Your task to perform on an android device: turn on location history Image 0: 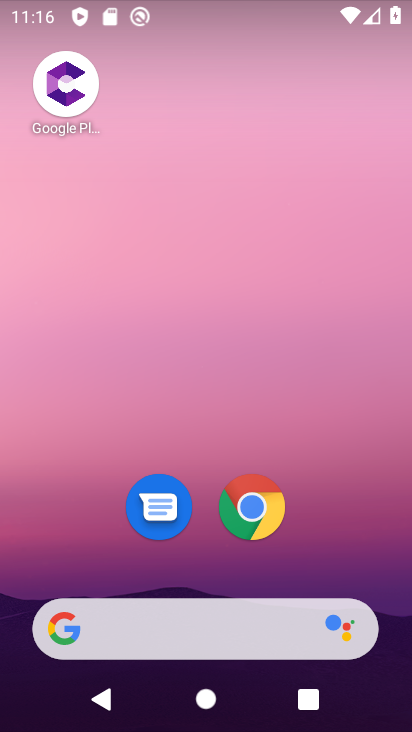
Step 0: drag from (387, 450) to (353, 148)
Your task to perform on an android device: turn on location history Image 1: 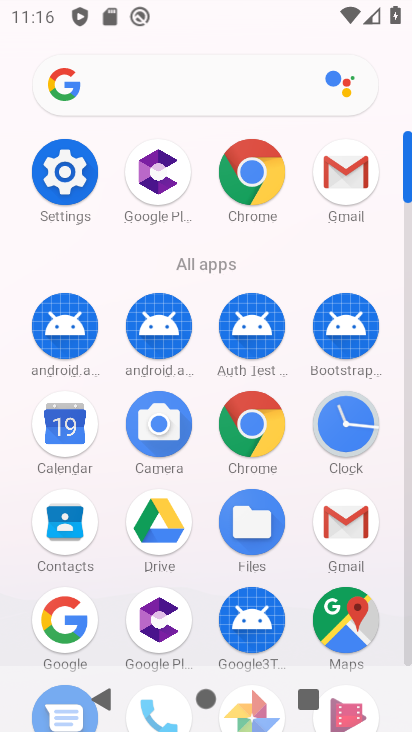
Step 1: click (53, 179)
Your task to perform on an android device: turn on location history Image 2: 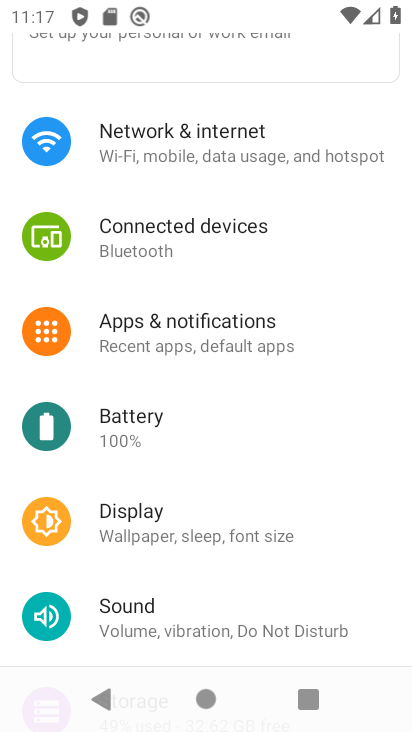
Step 2: drag from (272, 561) to (272, 221)
Your task to perform on an android device: turn on location history Image 3: 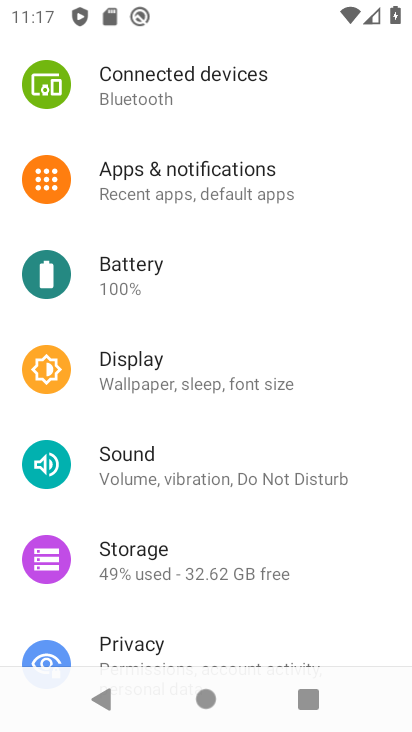
Step 3: drag from (336, 534) to (322, 311)
Your task to perform on an android device: turn on location history Image 4: 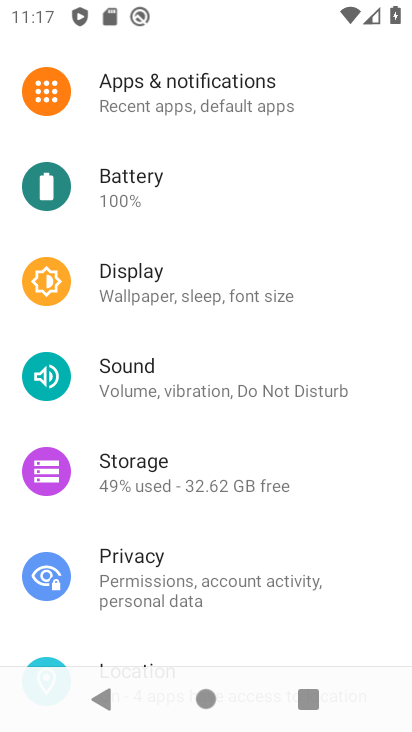
Step 4: drag from (304, 534) to (313, 315)
Your task to perform on an android device: turn on location history Image 5: 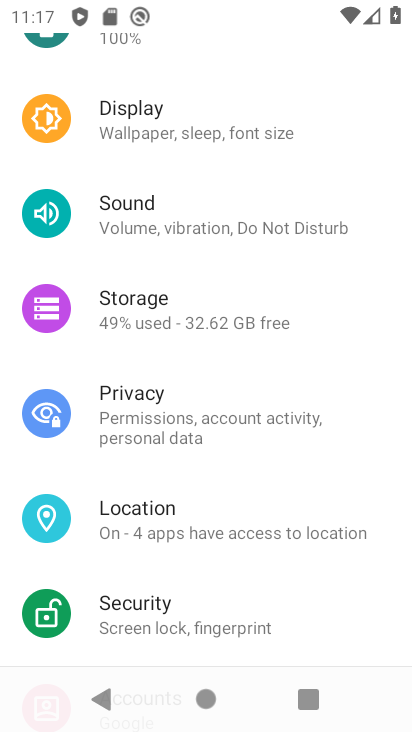
Step 5: click (232, 518)
Your task to perform on an android device: turn on location history Image 6: 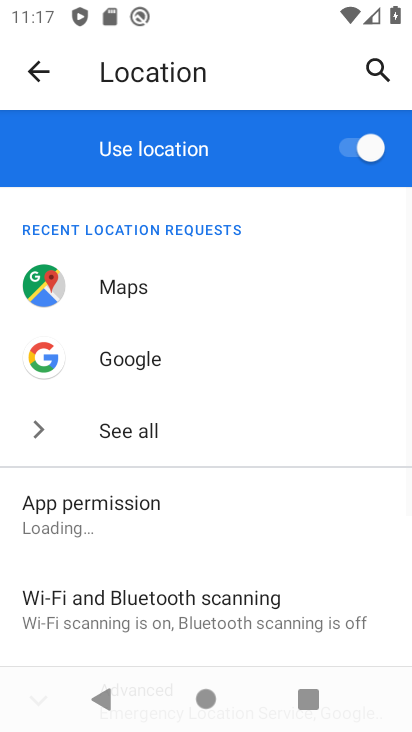
Step 6: drag from (348, 595) to (313, 216)
Your task to perform on an android device: turn on location history Image 7: 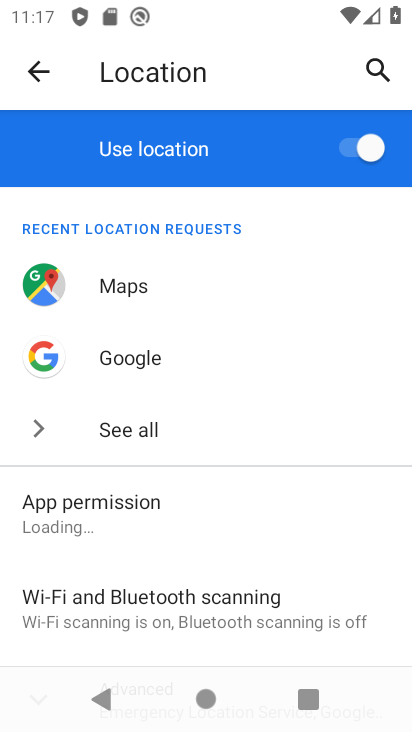
Step 7: drag from (356, 571) to (329, 315)
Your task to perform on an android device: turn on location history Image 8: 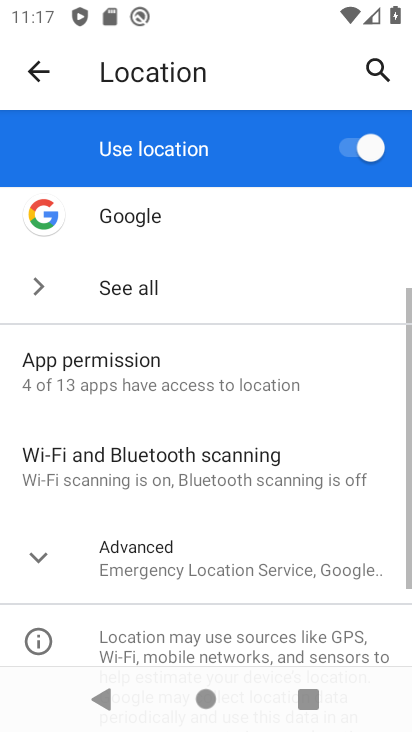
Step 8: click (333, 570)
Your task to perform on an android device: turn on location history Image 9: 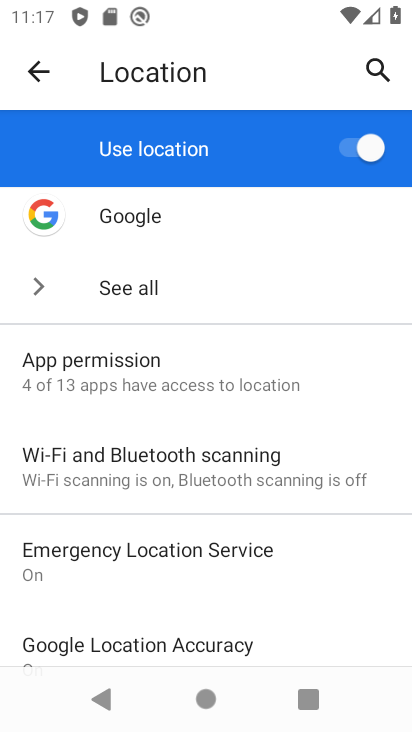
Step 9: drag from (332, 559) to (310, 264)
Your task to perform on an android device: turn on location history Image 10: 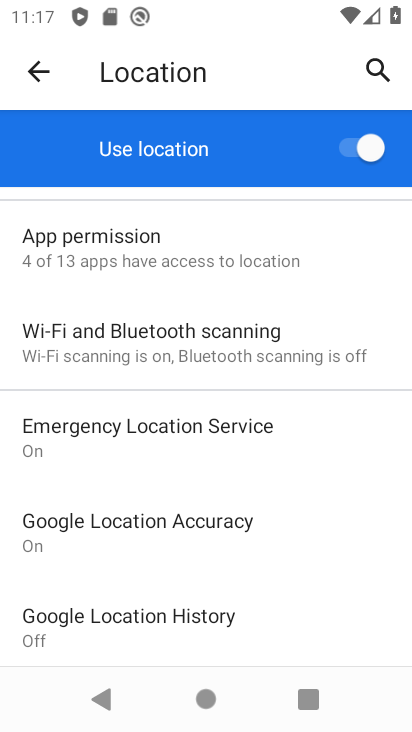
Step 10: click (166, 615)
Your task to perform on an android device: turn on location history Image 11: 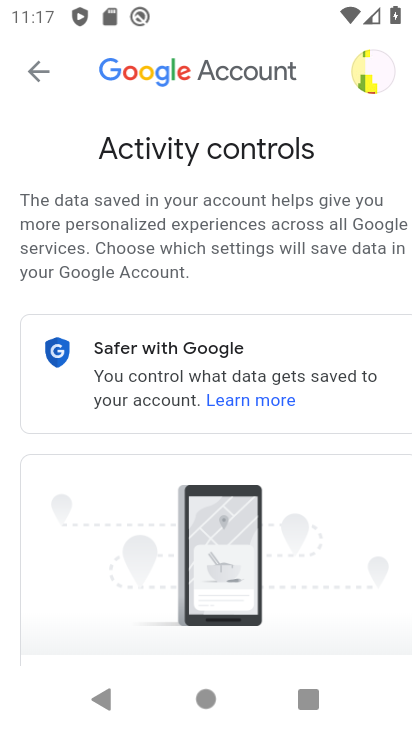
Step 11: drag from (344, 543) to (349, 183)
Your task to perform on an android device: turn on location history Image 12: 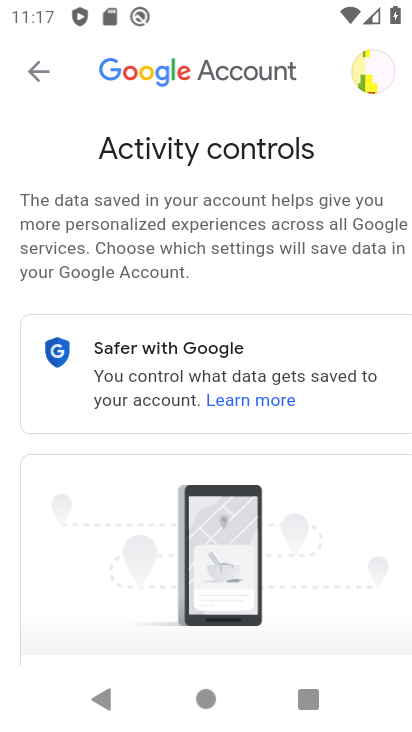
Step 12: drag from (323, 563) to (315, 257)
Your task to perform on an android device: turn on location history Image 13: 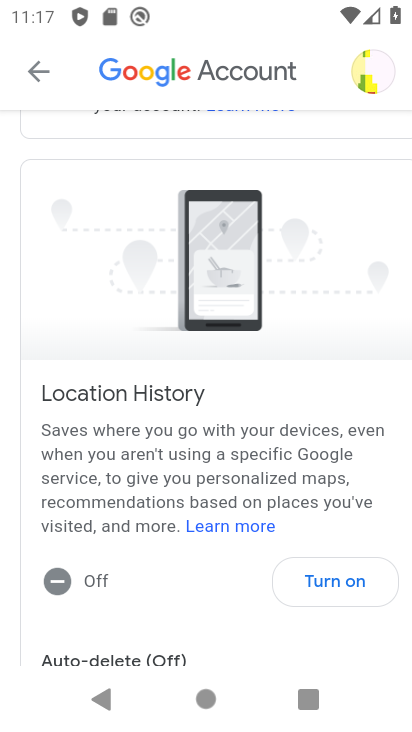
Step 13: drag from (174, 602) to (309, 244)
Your task to perform on an android device: turn on location history Image 14: 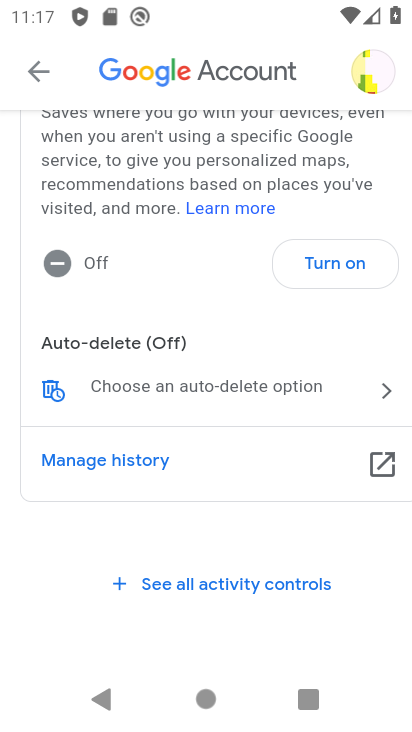
Step 14: click (315, 262)
Your task to perform on an android device: turn on location history Image 15: 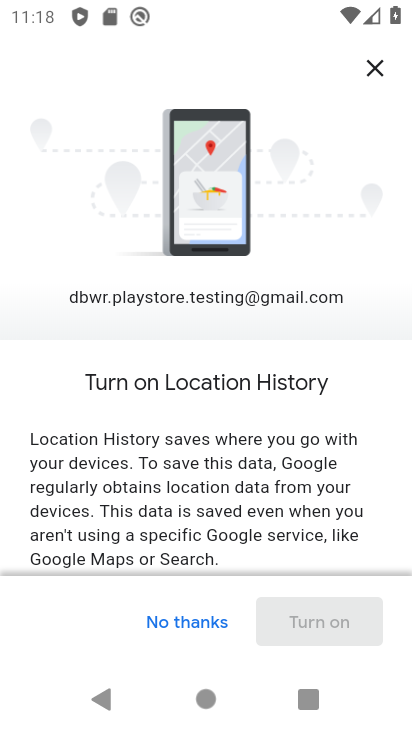
Step 15: drag from (197, 538) to (303, 206)
Your task to perform on an android device: turn on location history Image 16: 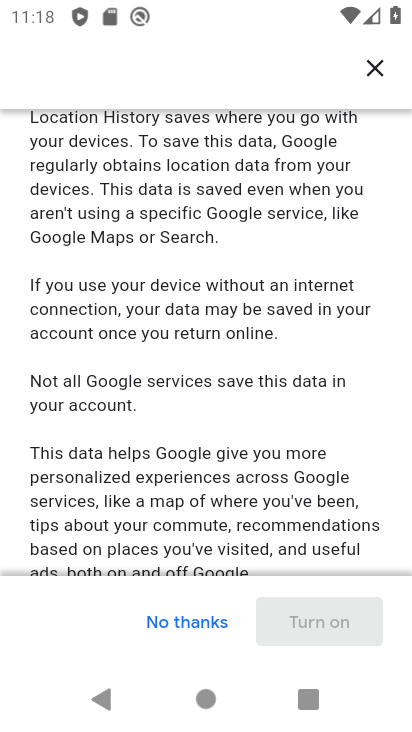
Step 16: drag from (244, 515) to (312, 193)
Your task to perform on an android device: turn on location history Image 17: 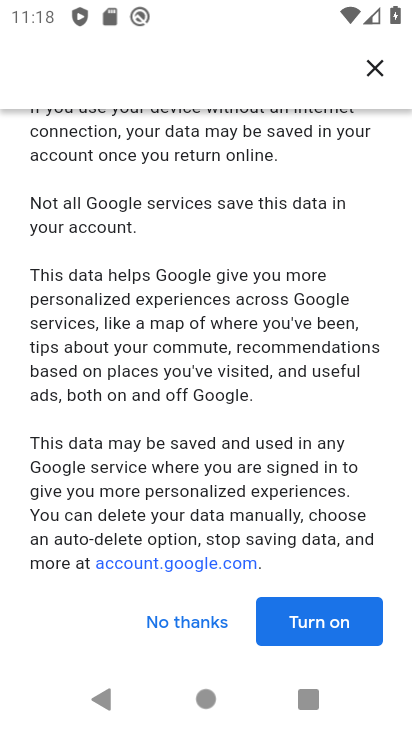
Step 17: click (341, 624)
Your task to perform on an android device: turn on location history Image 18: 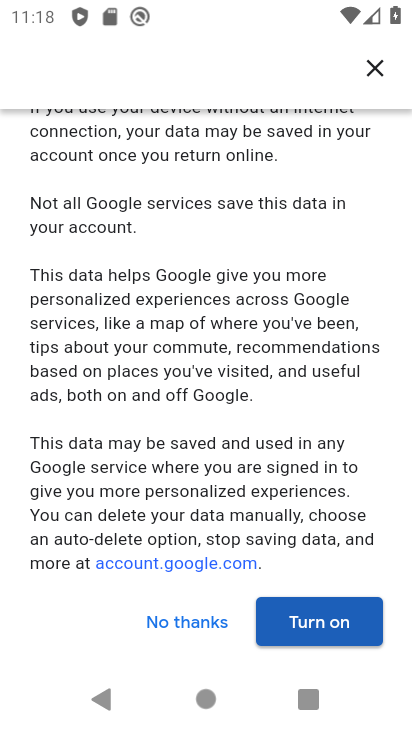
Step 18: click (350, 618)
Your task to perform on an android device: turn on location history Image 19: 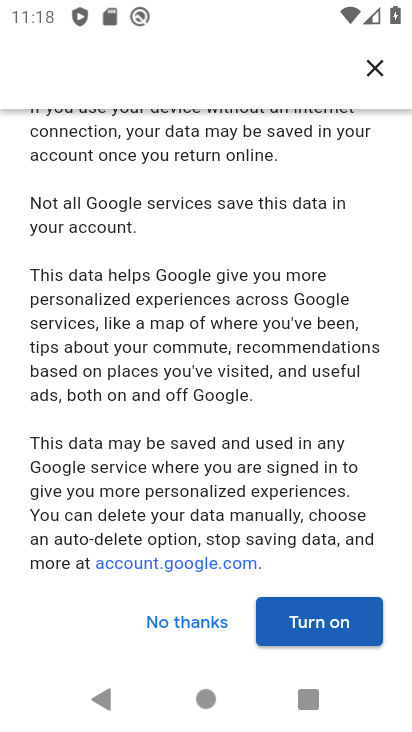
Step 19: click (347, 623)
Your task to perform on an android device: turn on location history Image 20: 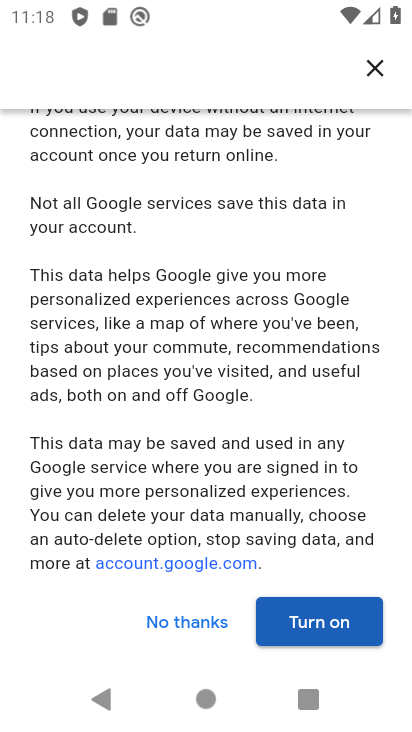
Step 20: click (347, 623)
Your task to perform on an android device: turn on location history Image 21: 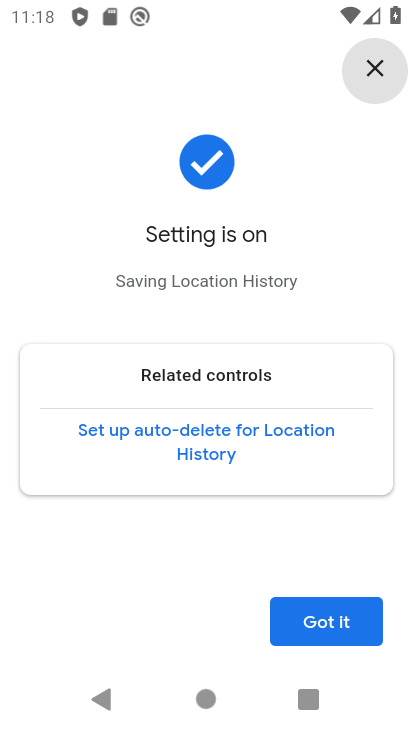
Step 21: task complete